Your task to perform on an android device: What's the latest news in space? Image 0: 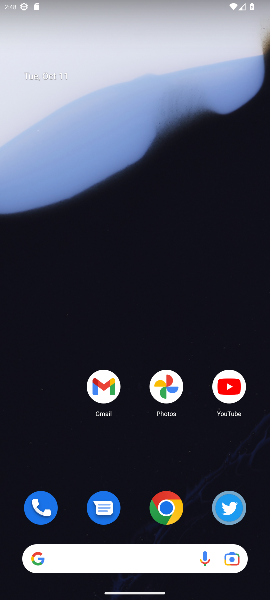
Step 0: click (170, 508)
Your task to perform on an android device: What's the latest news in space? Image 1: 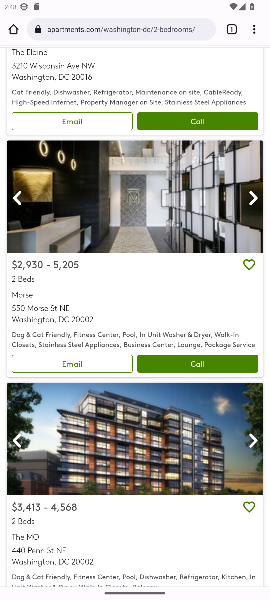
Step 1: click (116, 28)
Your task to perform on an android device: What's the latest news in space? Image 2: 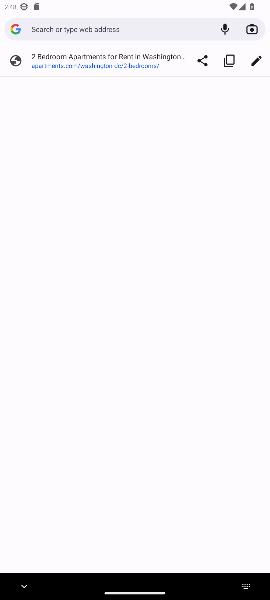
Step 2: type "latest news in space"
Your task to perform on an android device: What's the latest news in space? Image 3: 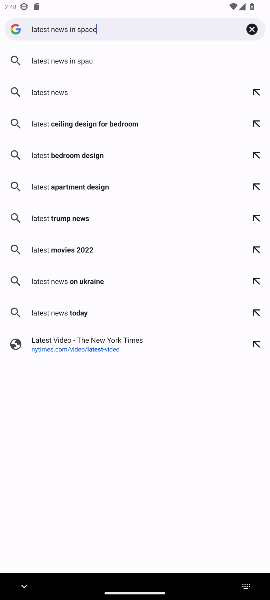
Step 3: type ""
Your task to perform on an android device: What's the latest news in space? Image 4: 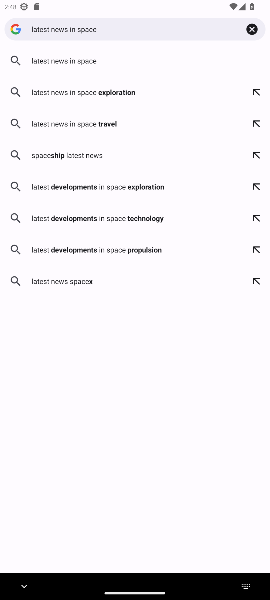
Step 4: press enter
Your task to perform on an android device: What's the latest news in space? Image 5: 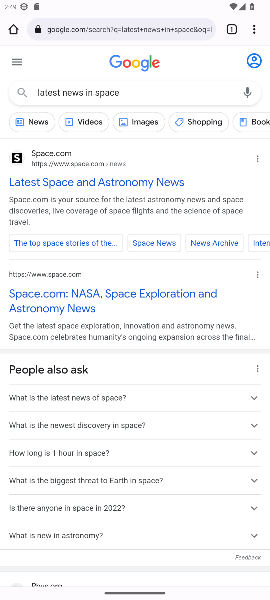
Step 5: click (32, 127)
Your task to perform on an android device: What's the latest news in space? Image 6: 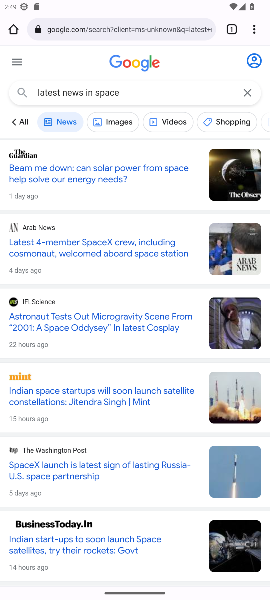
Step 6: task complete